Your task to perform on an android device: Search for the best way to get rid of a cold Image 0: 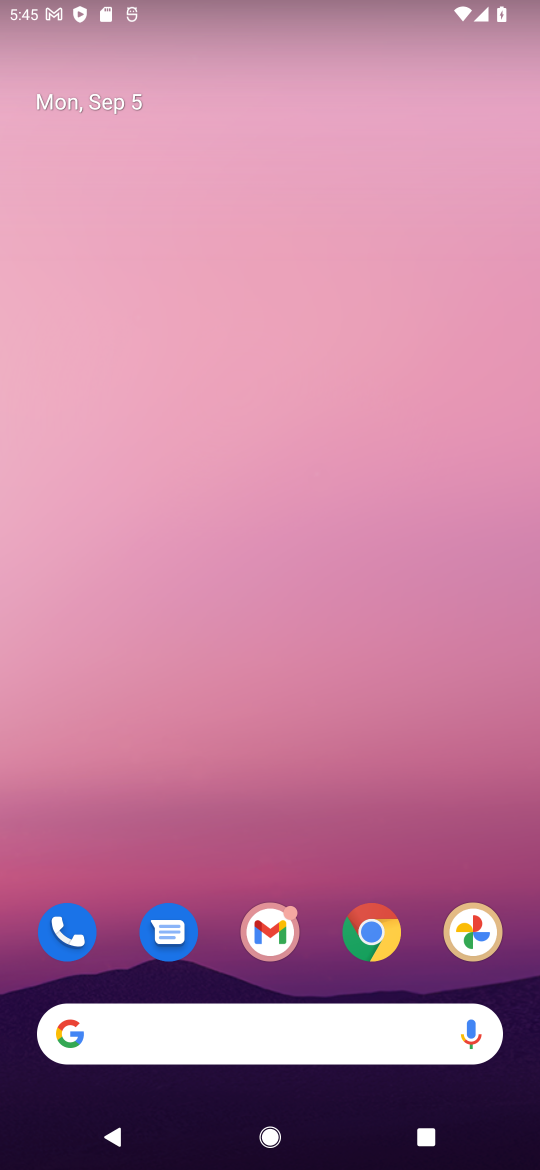
Step 0: drag from (328, 997) to (332, 63)
Your task to perform on an android device: Search for the best way to get rid of a cold Image 1: 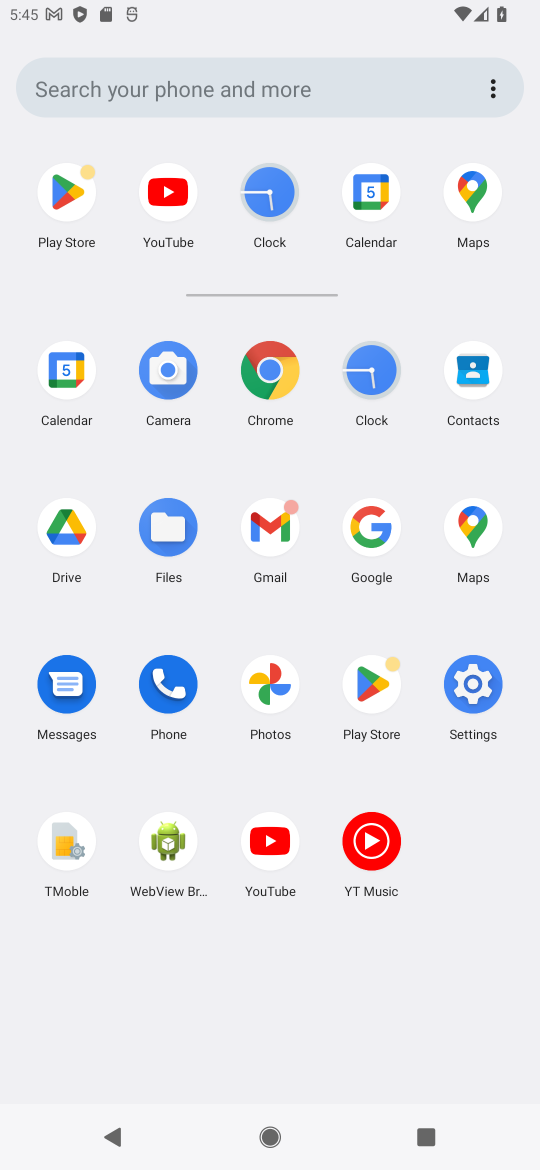
Step 1: click (366, 532)
Your task to perform on an android device: Search for the best way to get rid of a cold Image 2: 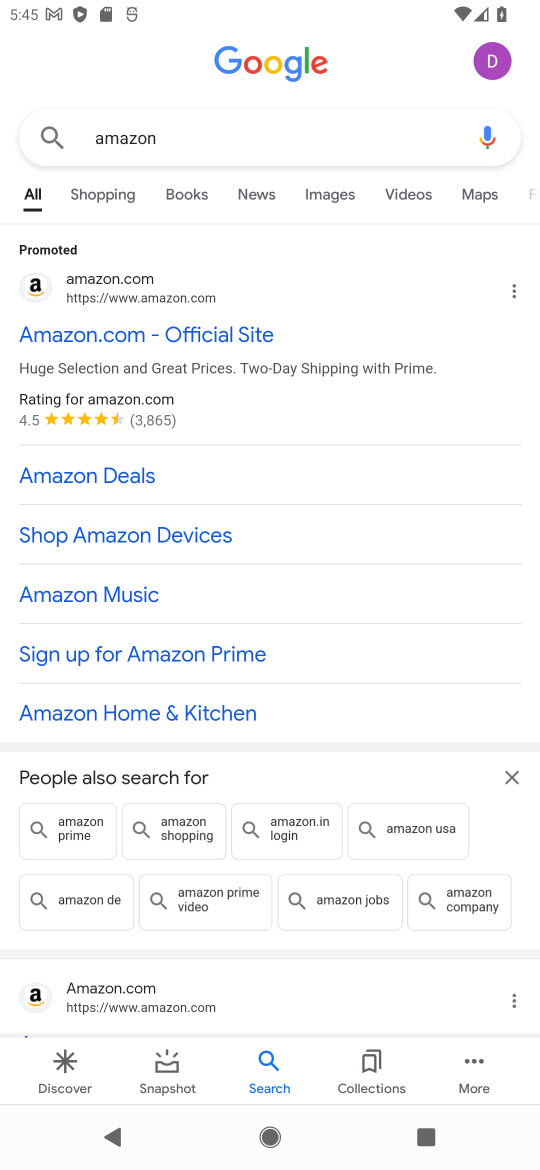
Step 2: click (256, 142)
Your task to perform on an android device: Search for the best way to get rid of a cold Image 3: 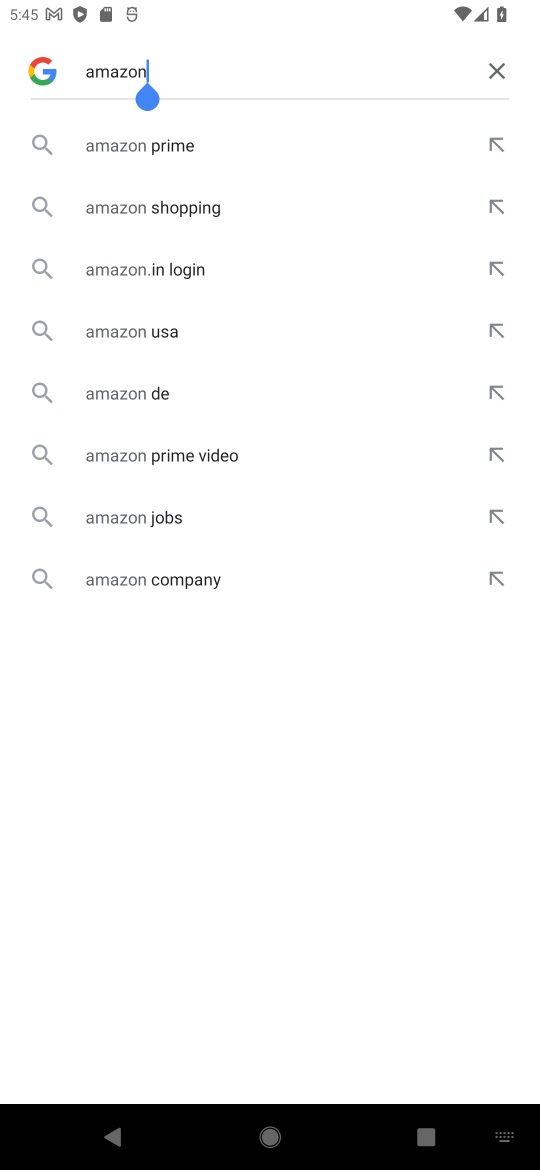
Step 3: click (494, 64)
Your task to perform on an android device: Search for the best way to get rid of a cold Image 4: 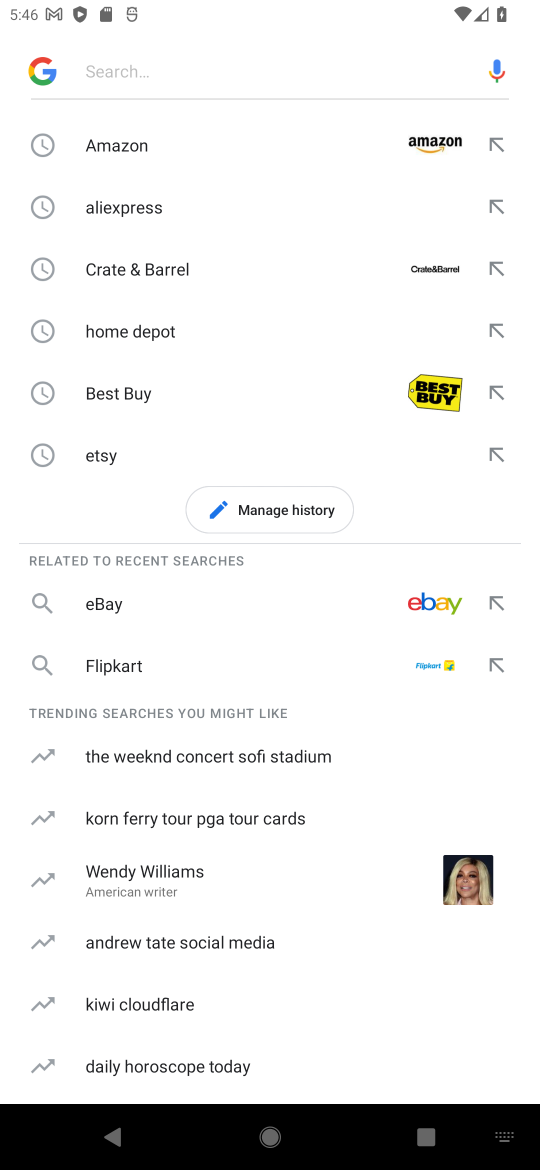
Step 4: type "best way to get rid of a cold"
Your task to perform on an android device: Search for the best way to get rid of a cold Image 5: 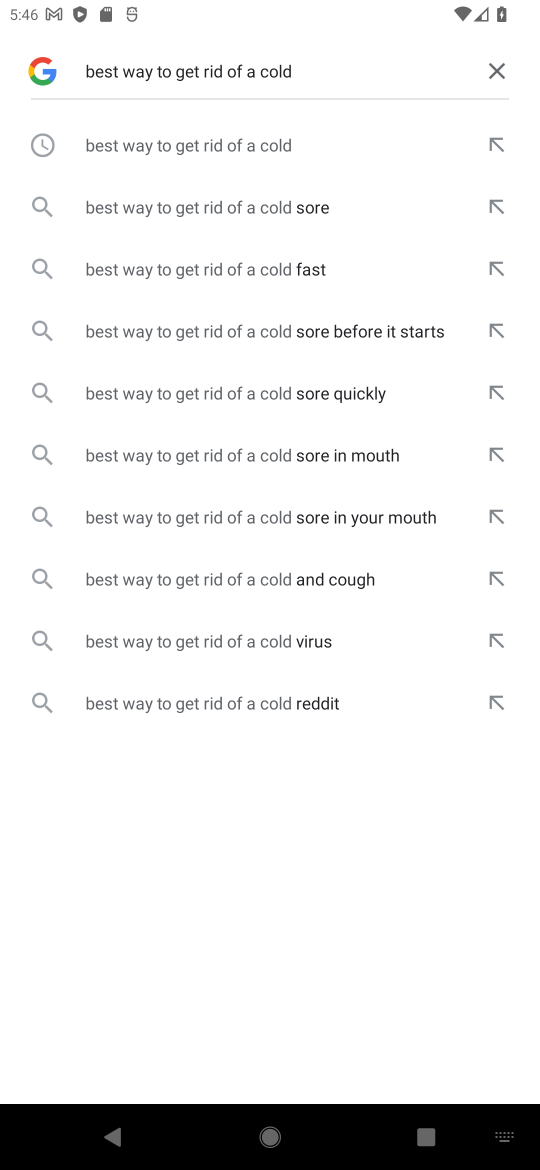
Step 5: click (257, 147)
Your task to perform on an android device: Search for the best way to get rid of a cold Image 6: 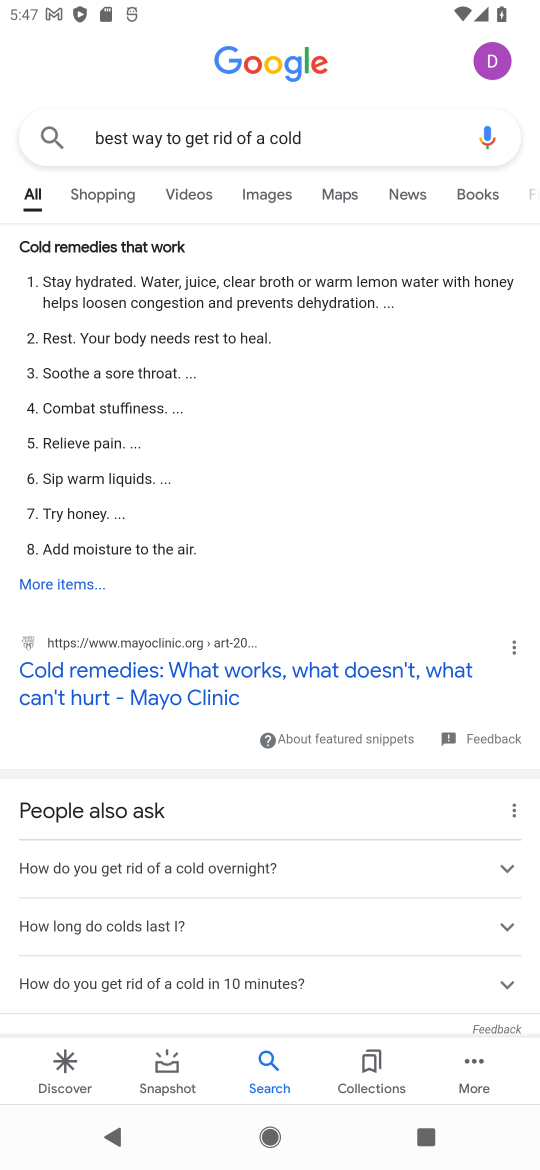
Step 6: click (447, 146)
Your task to perform on an android device: Search for the best way to get rid of a cold Image 7: 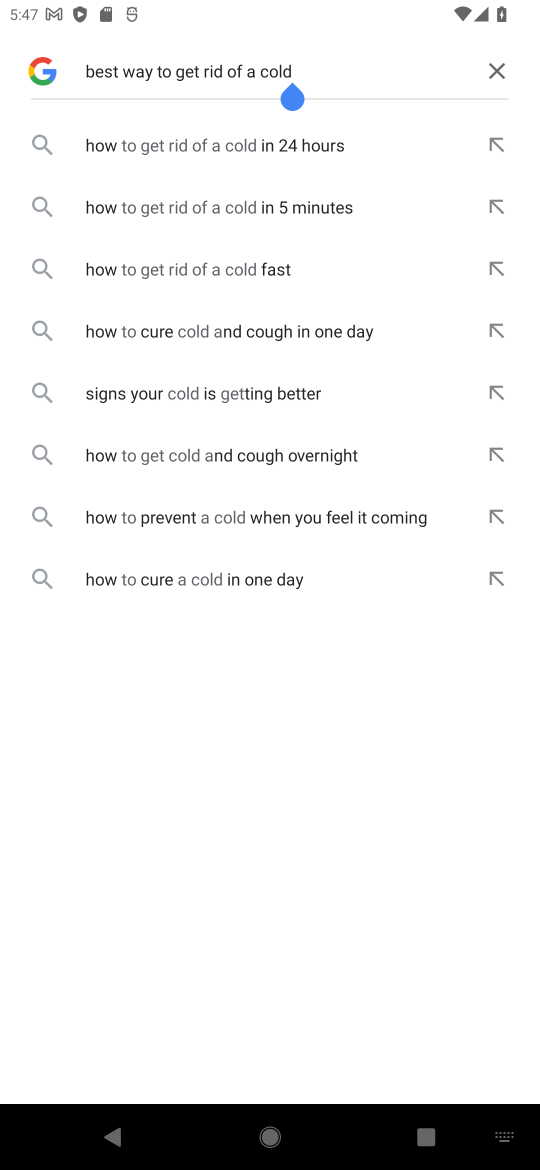
Step 7: task complete